Your task to perform on an android device: Open settings on Google Maps Image 0: 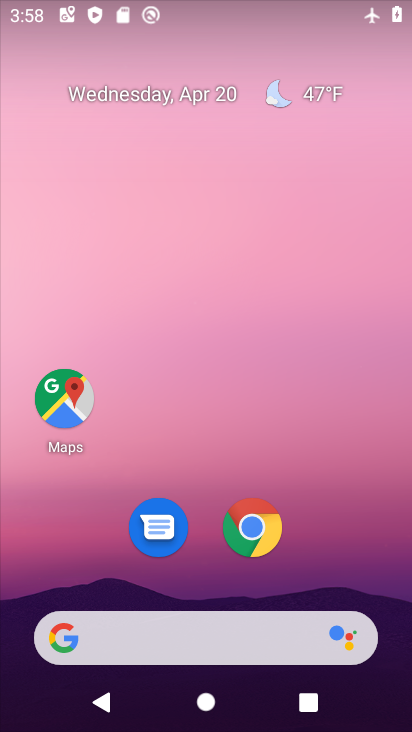
Step 0: click (60, 399)
Your task to perform on an android device: Open settings on Google Maps Image 1: 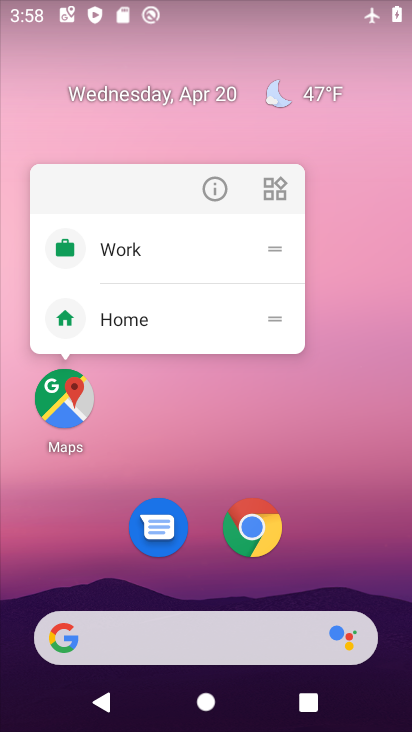
Step 1: click (64, 392)
Your task to perform on an android device: Open settings on Google Maps Image 2: 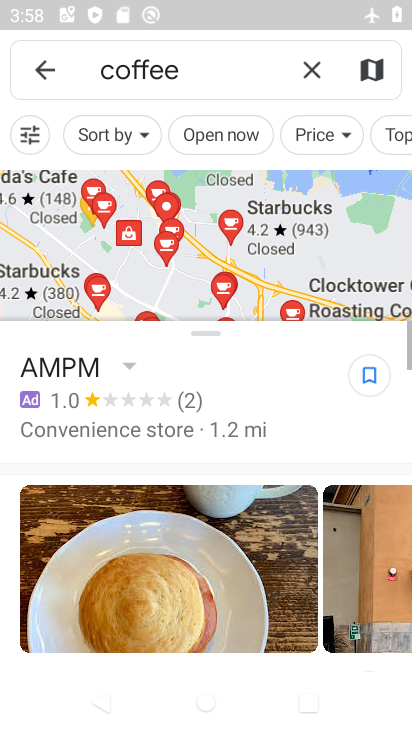
Step 2: press back button
Your task to perform on an android device: Open settings on Google Maps Image 3: 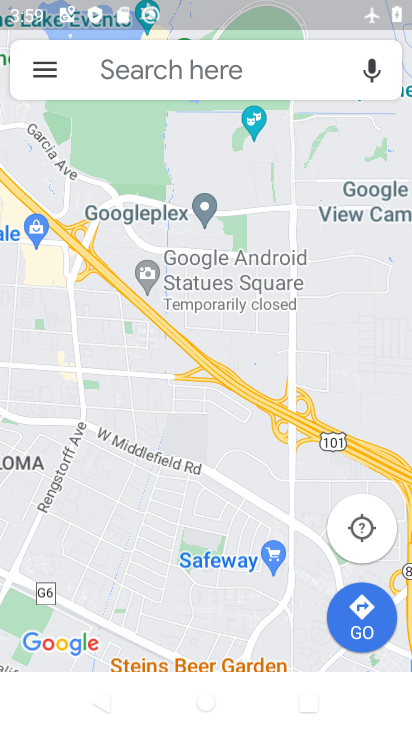
Step 3: click (51, 62)
Your task to perform on an android device: Open settings on Google Maps Image 4: 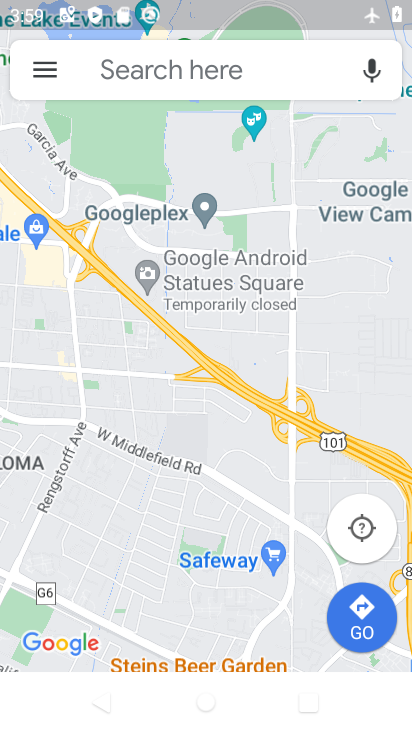
Step 4: click (47, 73)
Your task to perform on an android device: Open settings on Google Maps Image 5: 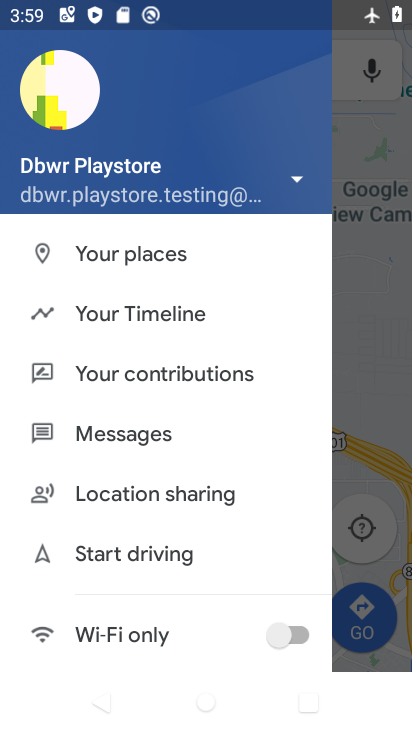
Step 5: drag from (153, 608) to (174, 236)
Your task to perform on an android device: Open settings on Google Maps Image 6: 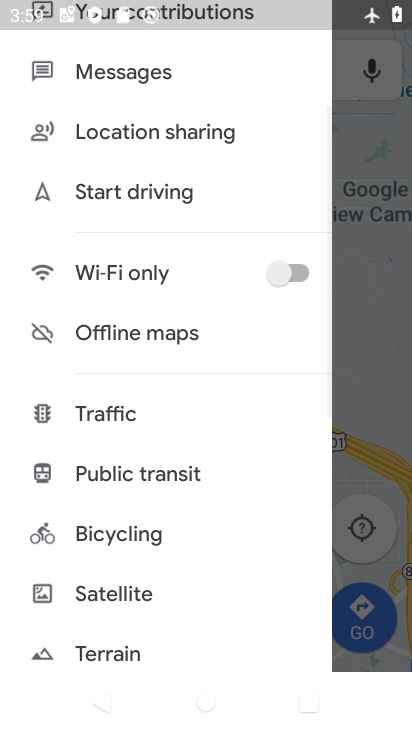
Step 6: drag from (168, 609) to (174, 261)
Your task to perform on an android device: Open settings on Google Maps Image 7: 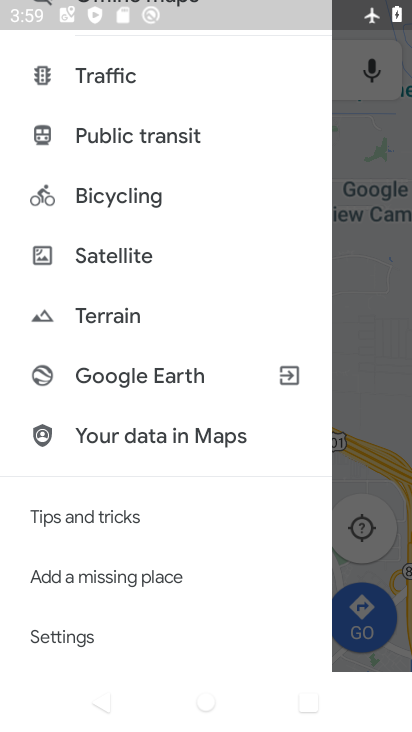
Step 7: click (58, 642)
Your task to perform on an android device: Open settings on Google Maps Image 8: 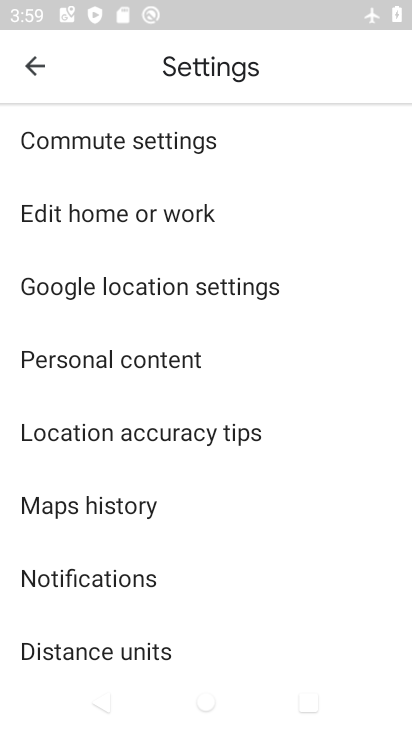
Step 8: task complete